Your task to perform on an android device: What is the news today? Image 0: 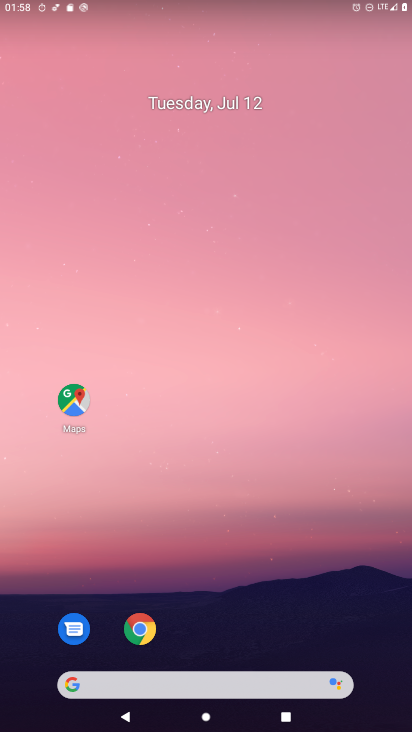
Step 0: click (163, 677)
Your task to perform on an android device: What is the news today? Image 1: 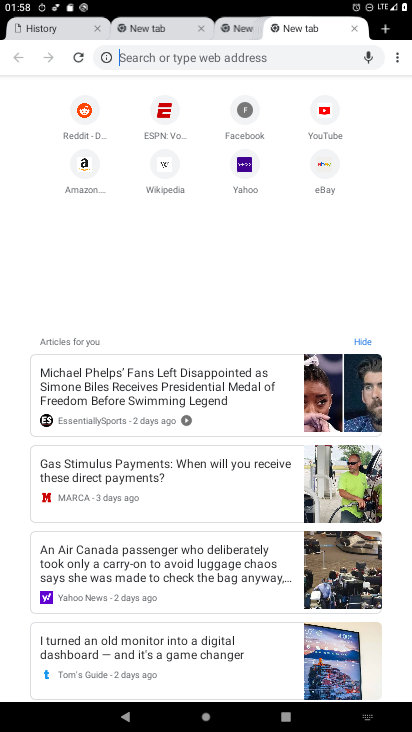
Step 1: type "What is the news today?"
Your task to perform on an android device: What is the news today? Image 2: 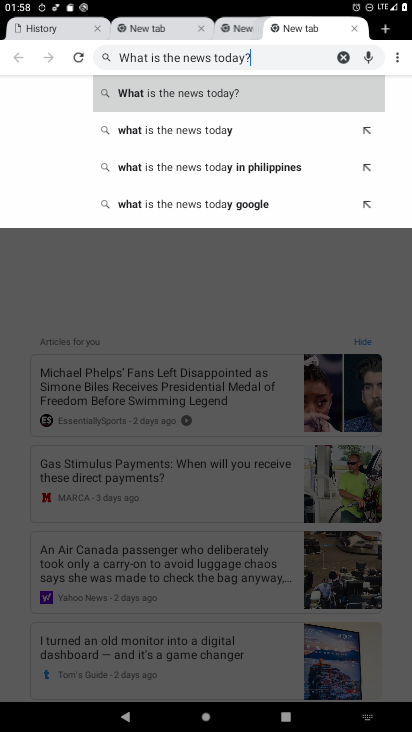
Step 2: type ""
Your task to perform on an android device: What is the news today? Image 3: 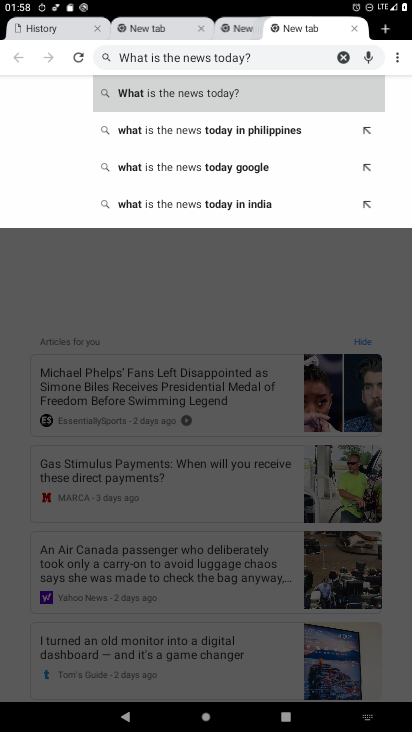
Step 3: click (176, 86)
Your task to perform on an android device: What is the news today? Image 4: 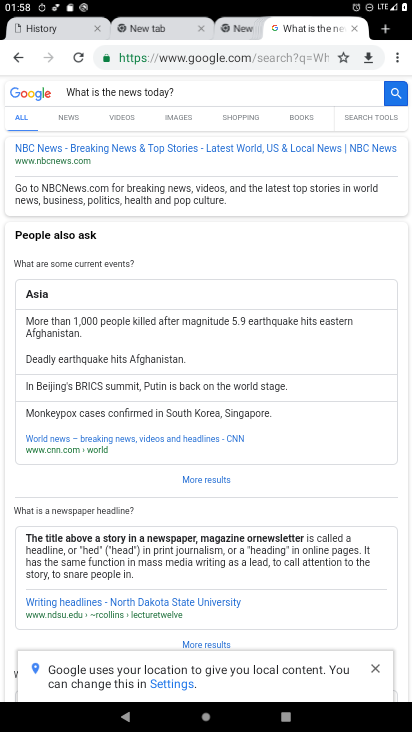
Step 4: task complete